Your task to perform on an android device: toggle notifications settings in the gmail app Image 0: 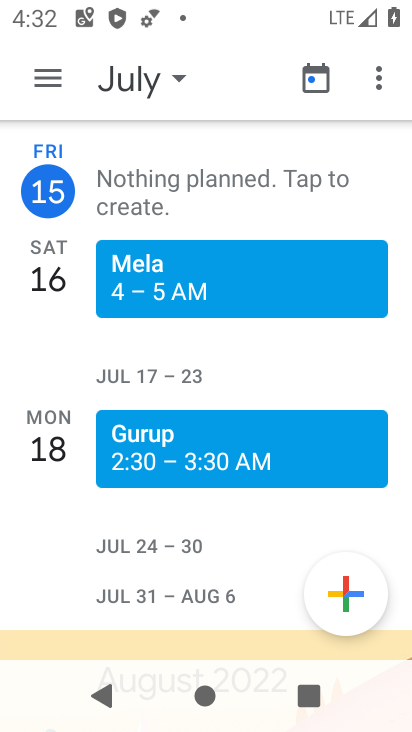
Step 0: press home button
Your task to perform on an android device: toggle notifications settings in the gmail app Image 1: 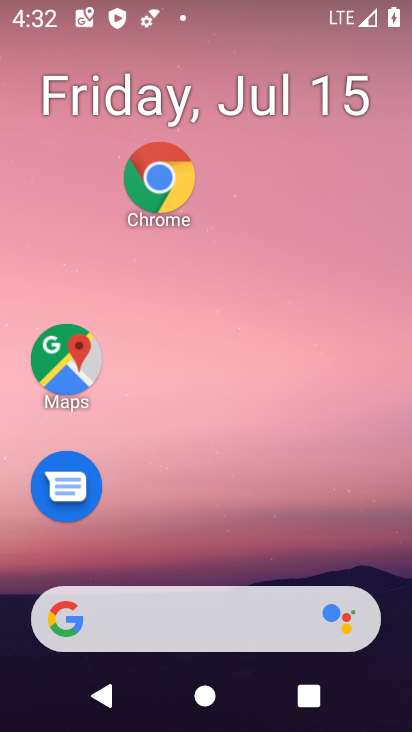
Step 1: drag from (215, 221) to (218, 140)
Your task to perform on an android device: toggle notifications settings in the gmail app Image 2: 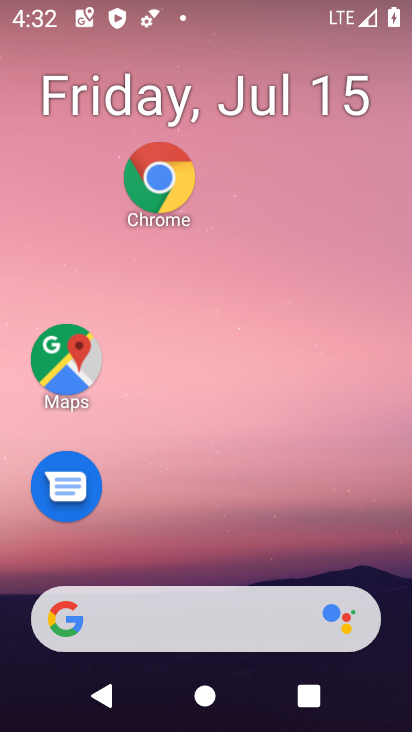
Step 2: click (307, 16)
Your task to perform on an android device: toggle notifications settings in the gmail app Image 3: 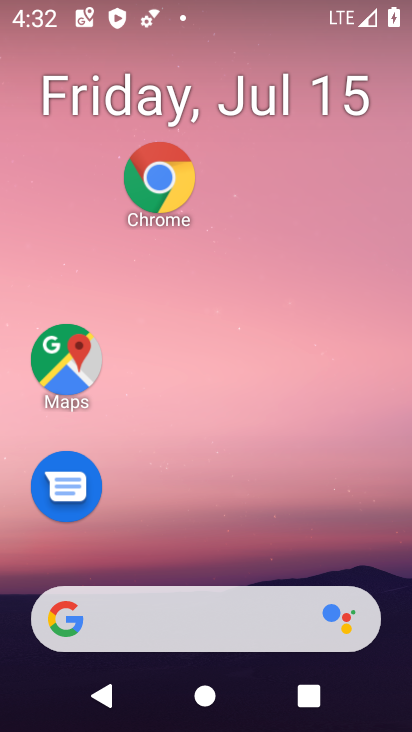
Step 3: click (182, 24)
Your task to perform on an android device: toggle notifications settings in the gmail app Image 4: 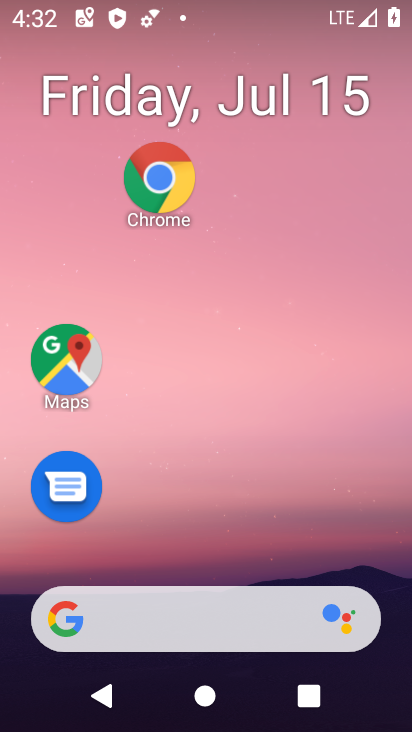
Step 4: drag from (188, 477) to (213, 62)
Your task to perform on an android device: toggle notifications settings in the gmail app Image 5: 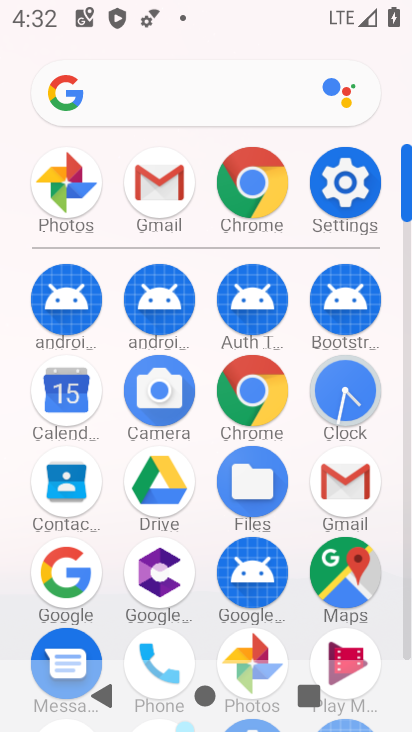
Step 5: click (345, 180)
Your task to perform on an android device: toggle notifications settings in the gmail app Image 6: 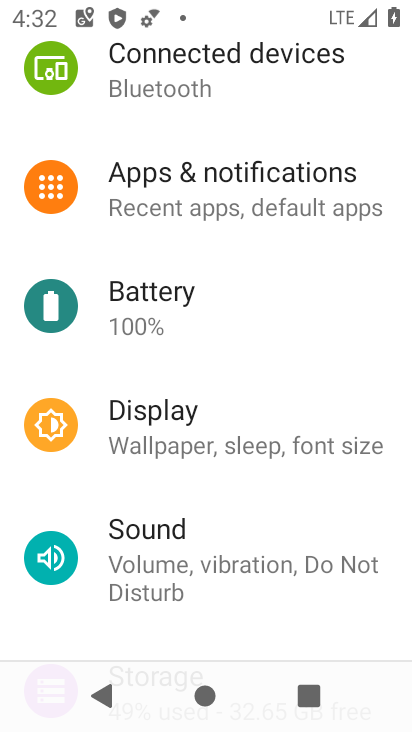
Step 6: drag from (292, 186) to (234, 617)
Your task to perform on an android device: toggle notifications settings in the gmail app Image 7: 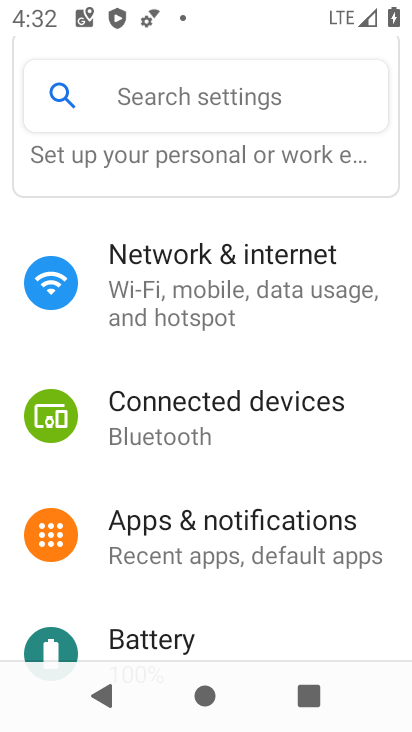
Step 7: press home button
Your task to perform on an android device: toggle notifications settings in the gmail app Image 8: 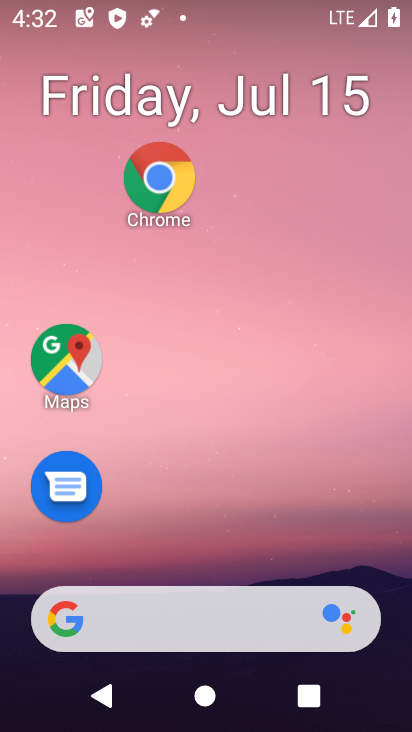
Step 8: drag from (171, 254) to (170, 70)
Your task to perform on an android device: toggle notifications settings in the gmail app Image 9: 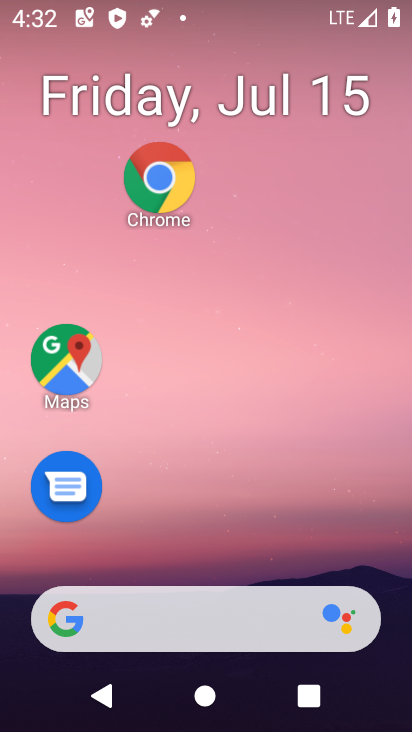
Step 9: drag from (229, 219) to (230, 34)
Your task to perform on an android device: toggle notifications settings in the gmail app Image 10: 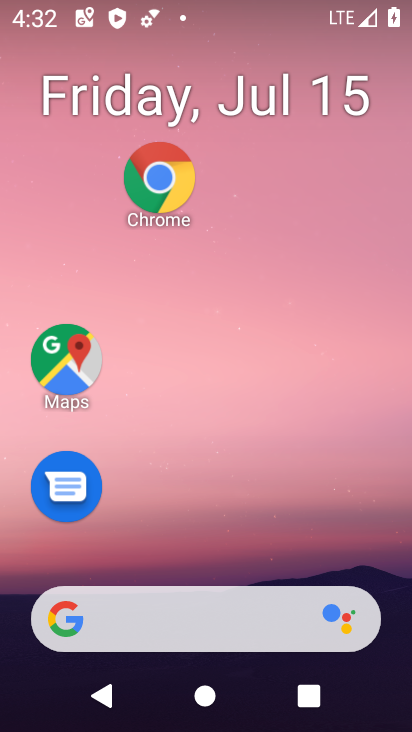
Step 10: drag from (207, 557) to (179, 1)
Your task to perform on an android device: toggle notifications settings in the gmail app Image 11: 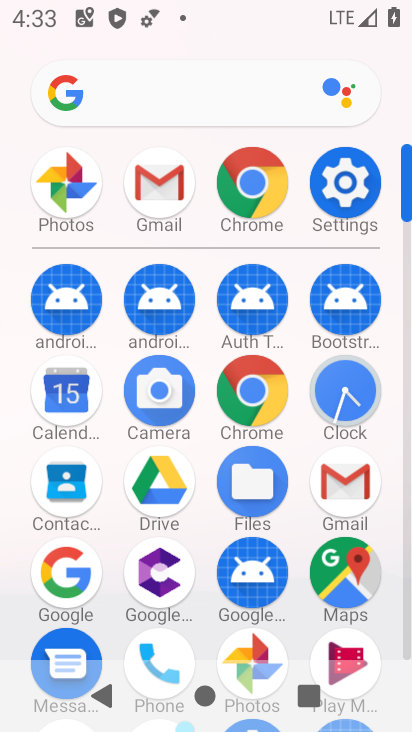
Step 11: click (140, 196)
Your task to perform on an android device: toggle notifications settings in the gmail app Image 12: 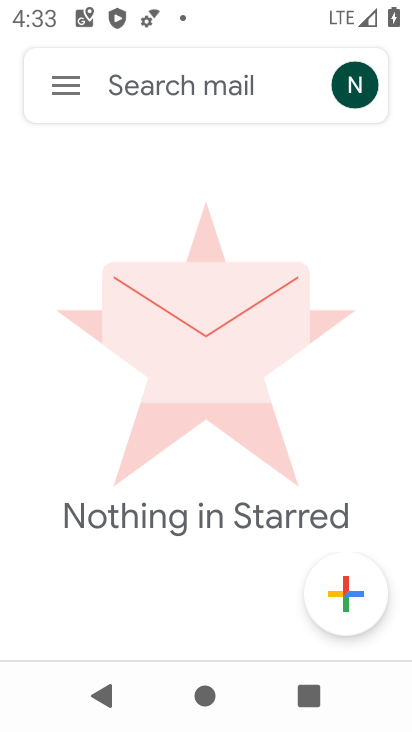
Step 12: click (60, 86)
Your task to perform on an android device: toggle notifications settings in the gmail app Image 13: 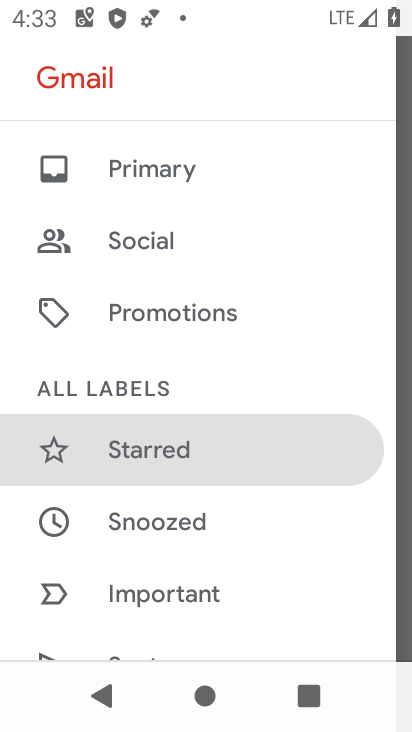
Step 13: click (192, 214)
Your task to perform on an android device: toggle notifications settings in the gmail app Image 14: 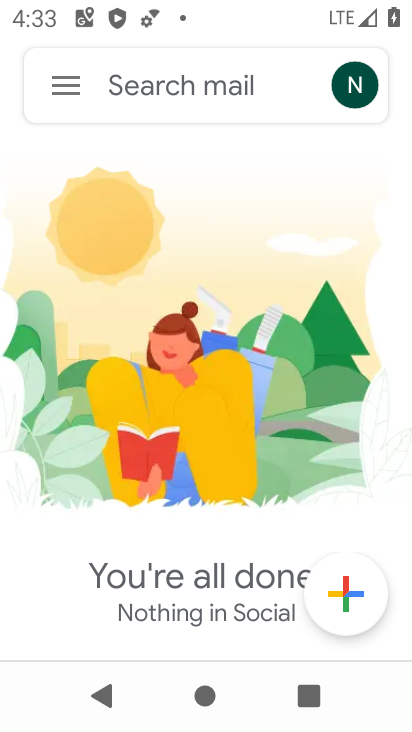
Step 14: click (64, 84)
Your task to perform on an android device: toggle notifications settings in the gmail app Image 15: 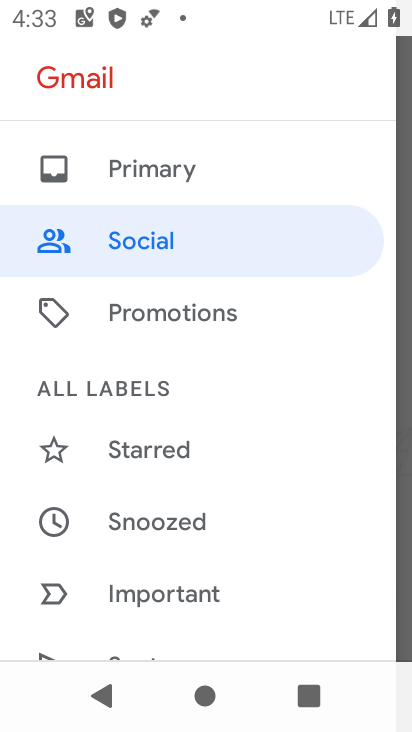
Step 15: drag from (197, 527) to (199, 217)
Your task to perform on an android device: toggle notifications settings in the gmail app Image 16: 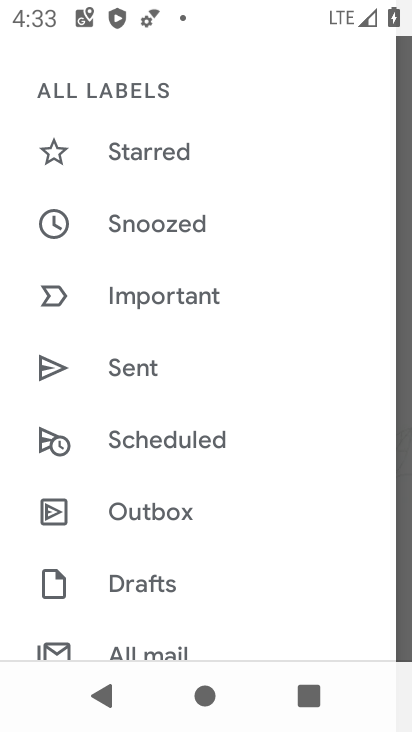
Step 16: drag from (187, 594) to (187, 198)
Your task to perform on an android device: toggle notifications settings in the gmail app Image 17: 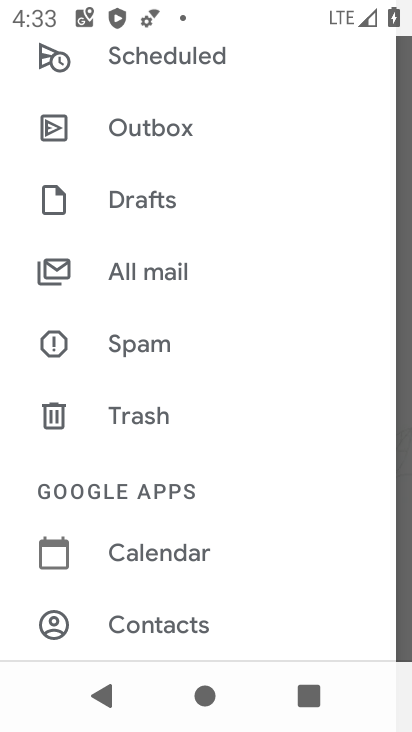
Step 17: drag from (164, 572) to (219, 264)
Your task to perform on an android device: toggle notifications settings in the gmail app Image 18: 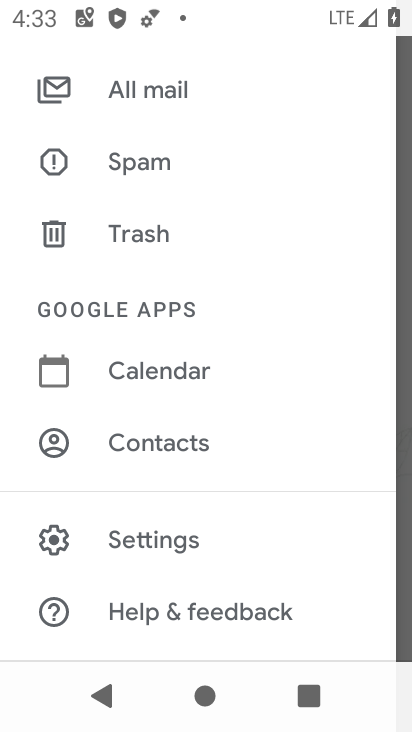
Step 18: click (176, 533)
Your task to perform on an android device: toggle notifications settings in the gmail app Image 19: 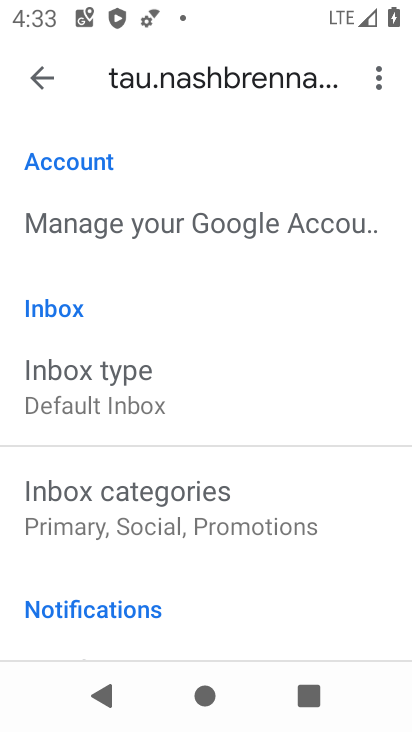
Step 19: drag from (162, 521) to (173, 344)
Your task to perform on an android device: toggle notifications settings in the gmail app Image 20: 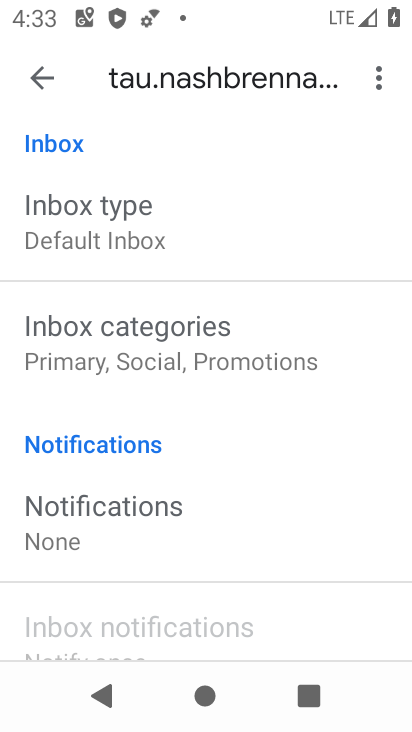
Step 20: click (77, 537)
Your task to perform on an android device: toggle notifications settings in the gmail app Image 21: 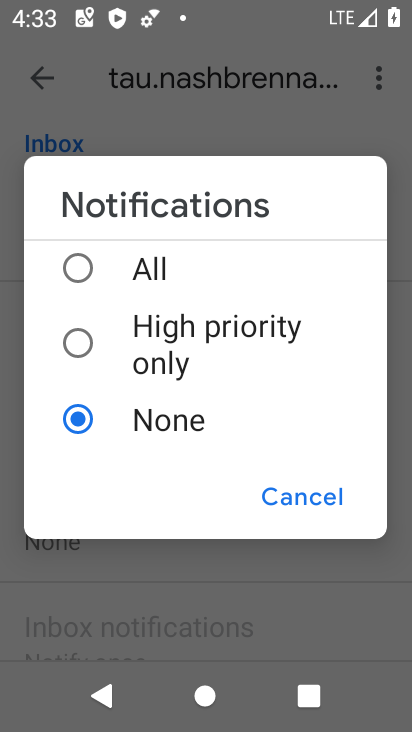
Step 21: click (73, 276)
Your task to perform on an android device: toggle notifications settings in the gmail app Image 22: 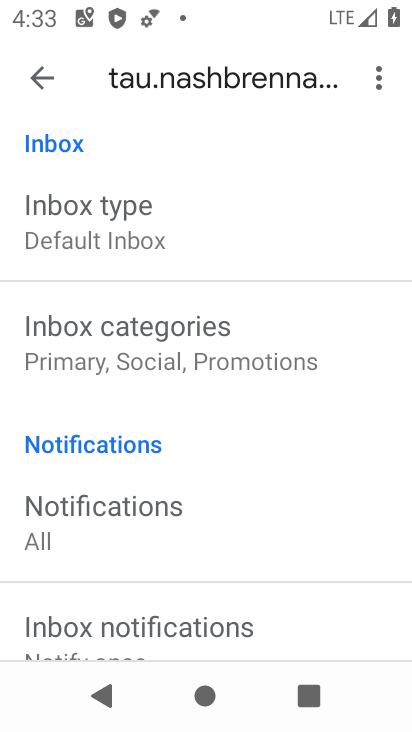
Step 22: task complete